Your task to perform on an android device: open app "Etsy: Buy & Sell Unique Items" Image 0: 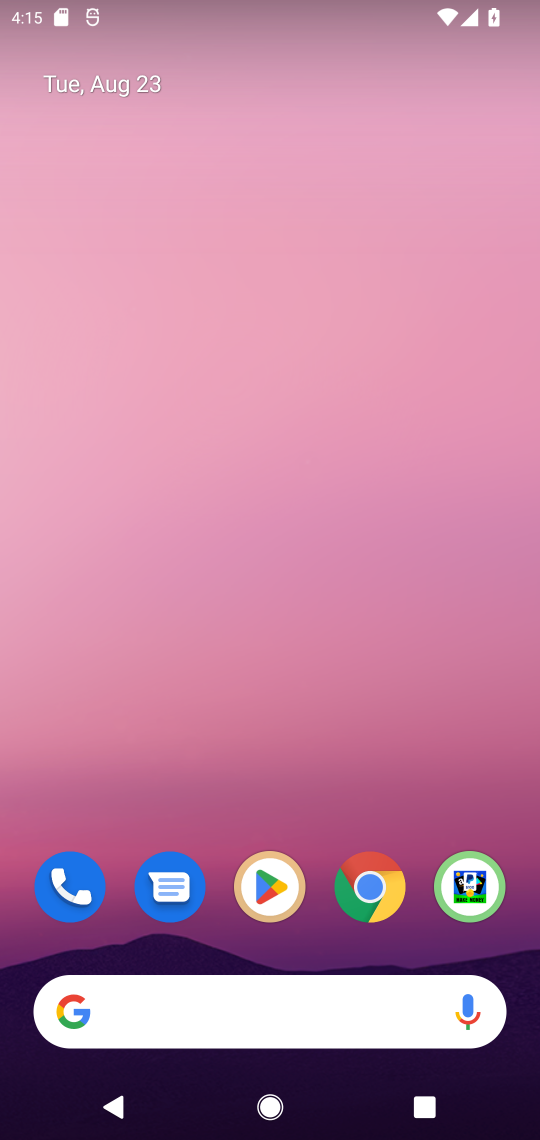
Step 0: click (270, 888)
Your task to perform on an android device: open app "Etsy: Buy & Sell Unique Items" Image 1: 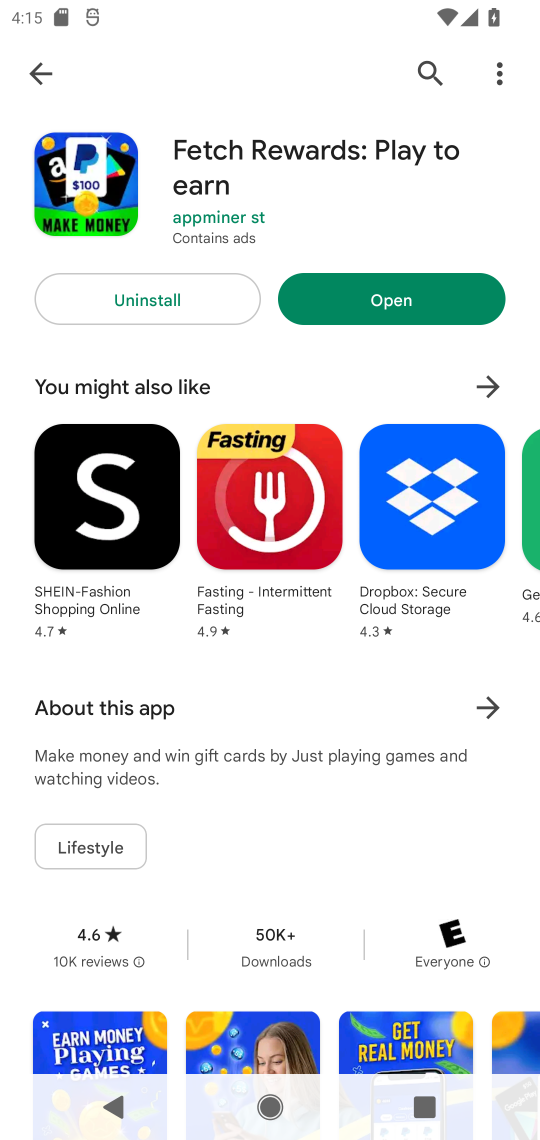
Step 1: click (270, 888)
Your task to perform on an android device: open app "Etsy: Buy & Sell Unique Items" Image 2: 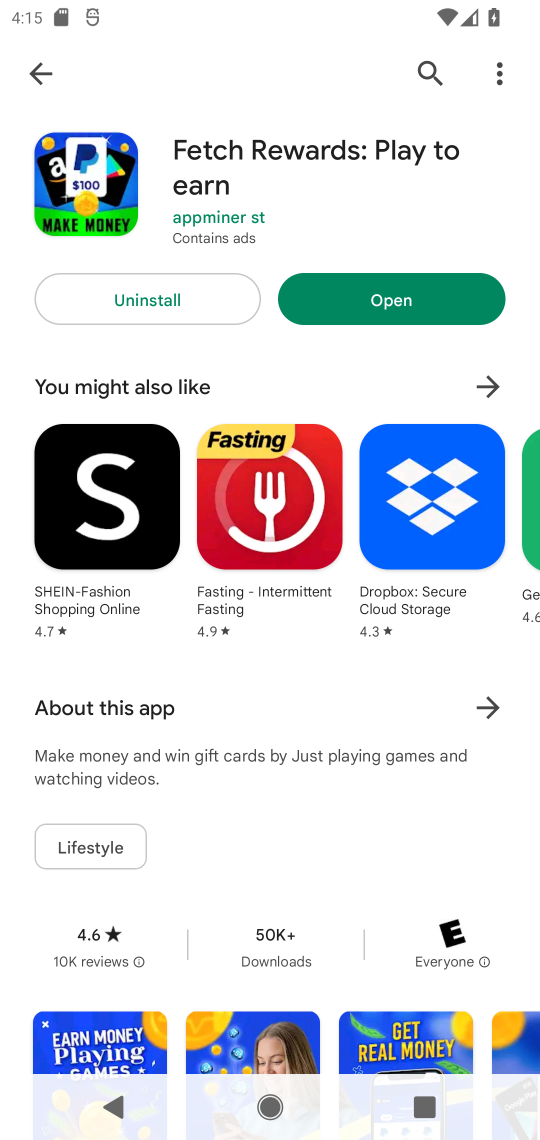
Step 2: click (39, 79)
Your task to perform on an android device: open app "Etsy: Buy & Sell Unique Items" Image 3: 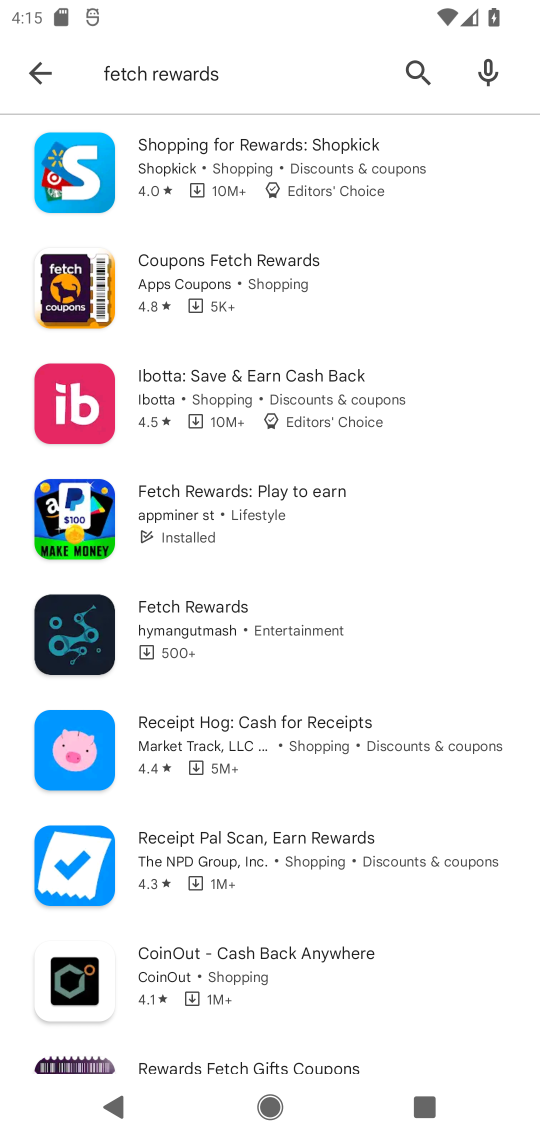
Step 3: click (33, 65)
Your task to perform on an android device: open app "Etsy: Buy & Sell Unique Items" Image 4: 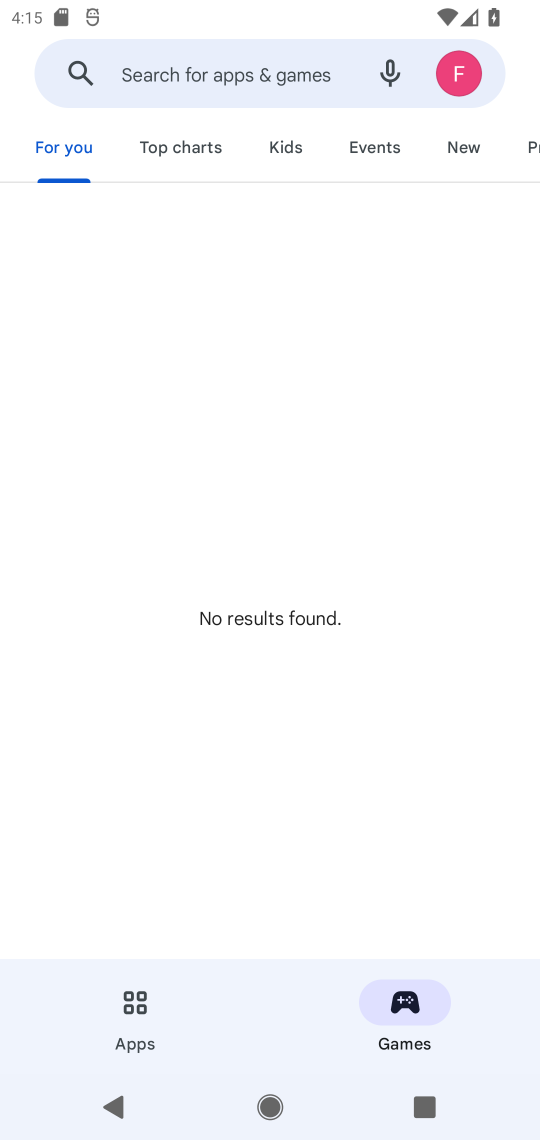
Step 4: click (243, 79)
Your task to perform on an android device: open app "Etsy: Buy & Sell Unique Items" Image 5: 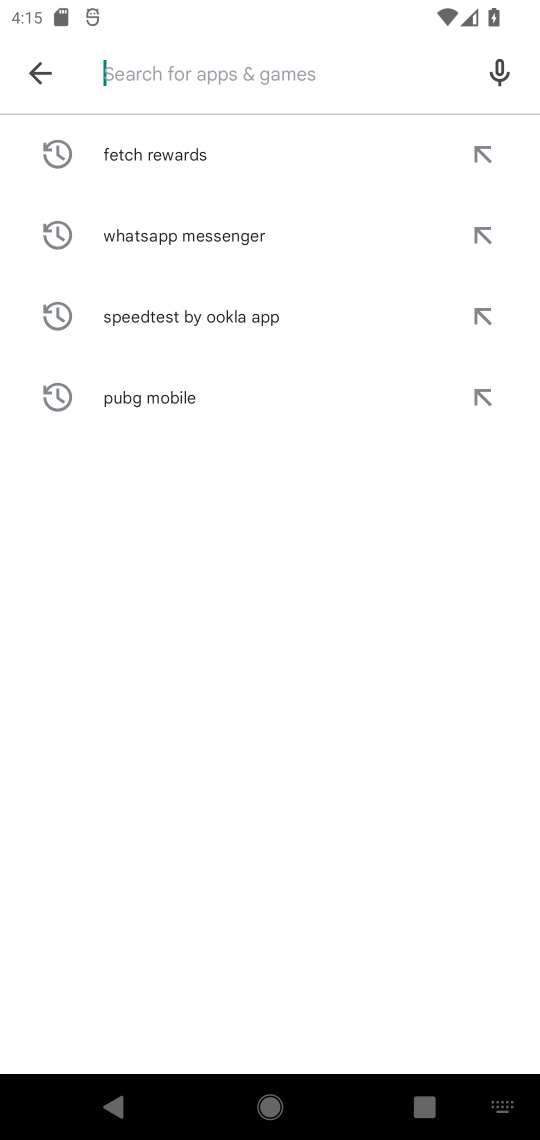
Step 5: type "Etsy"
Your task to perform on an android device: open app "Etsy: Buy & Sell Unique Items" Image 6: 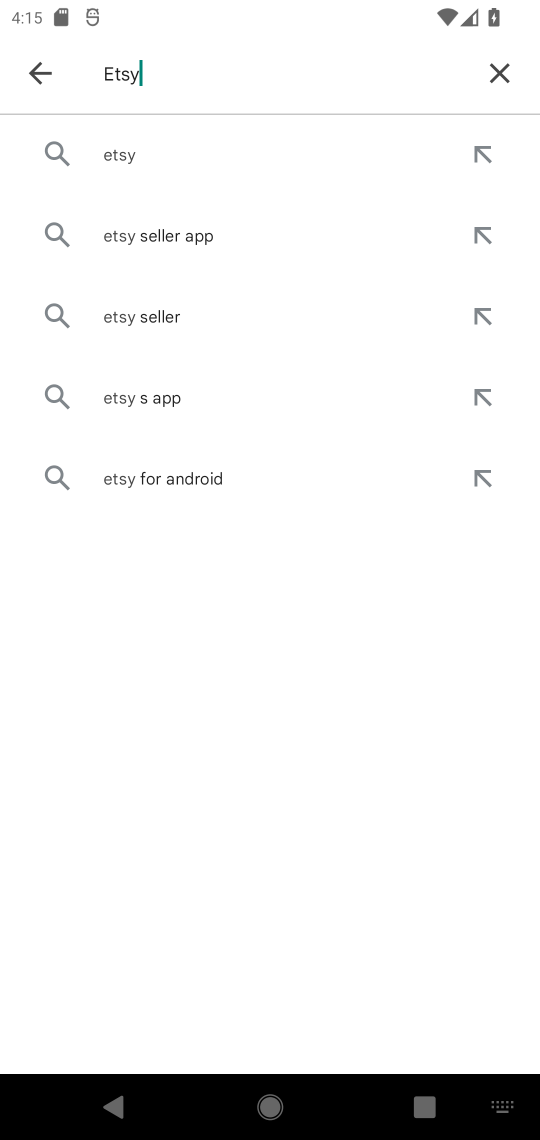
Step 6: click (103, 165)
Your task to perform on an android device: open app "Etsy: Buy & Sell Unique Items" Image 7: 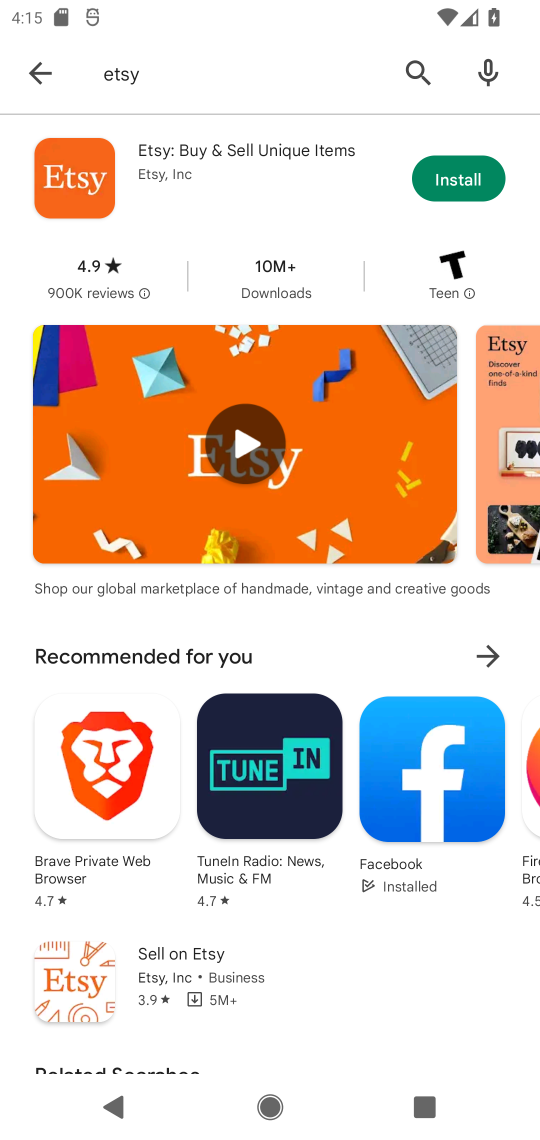
Step 7: click (451, 165)
Your task to perform on an android device: open app "Etsy: Buy & Sell Unique Items" Image 8: 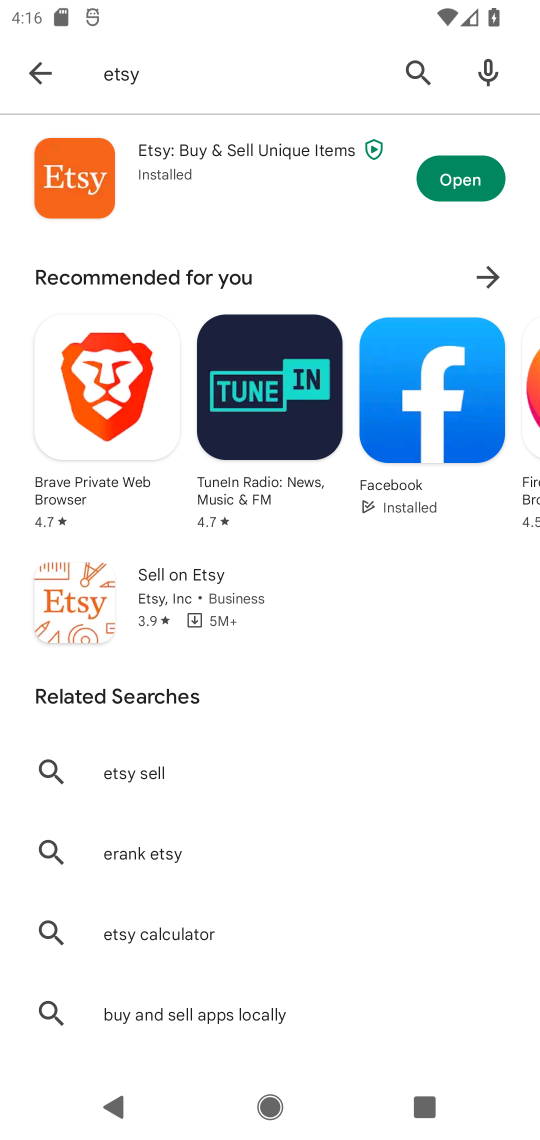
Step 8: click (451, 182)
Your task to perform on an android device: open app "Etsy: Buy & Sell Unique Items" Image 9: 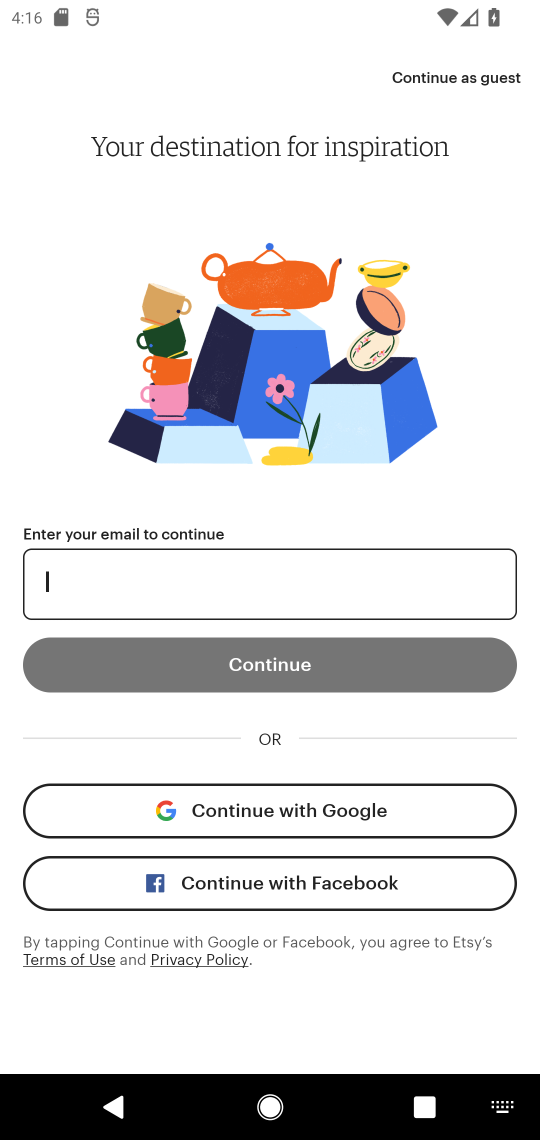
Step 9: task complete